Your task to perform on an android device: open app "Airtel Thanks" Image 0: 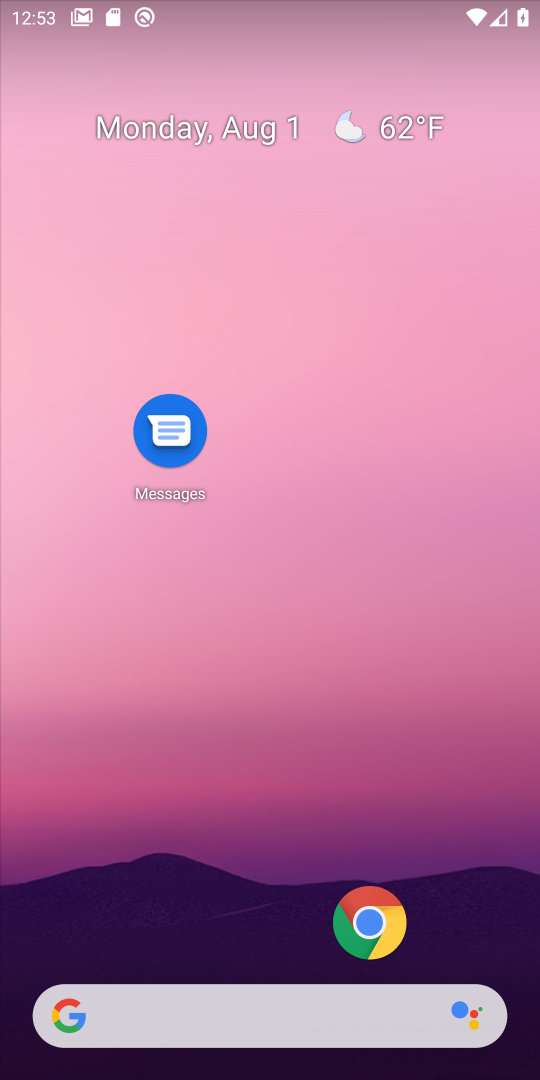
Step 0: drag from (260, 934) to (326, 261)
Your task to perform on an android device: open app "Airtel Thanks" Image 1: 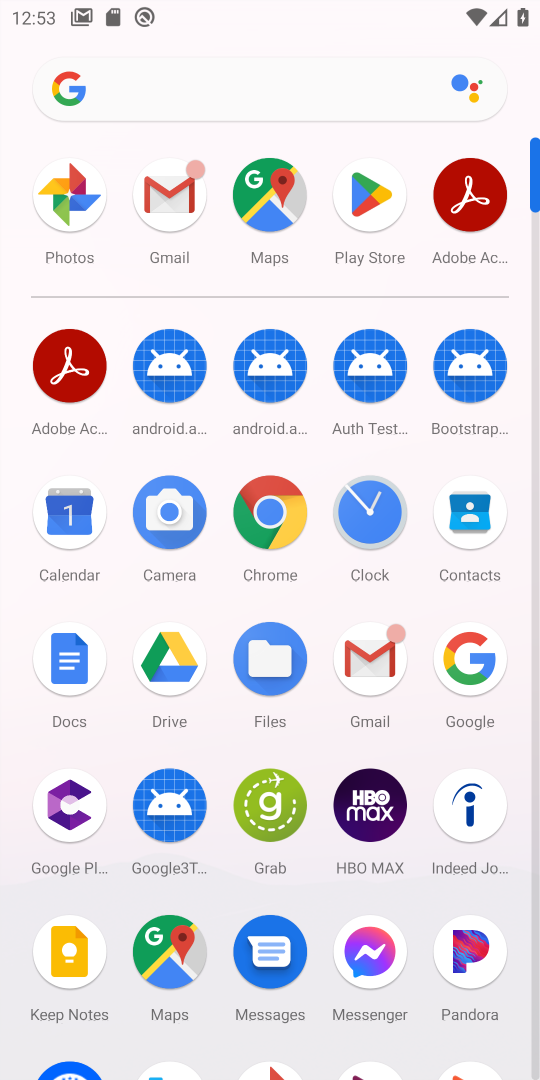
Step 1: click (370, 200)
Your task to perform on an android device: open app "Airtel Thanks" Image 2: 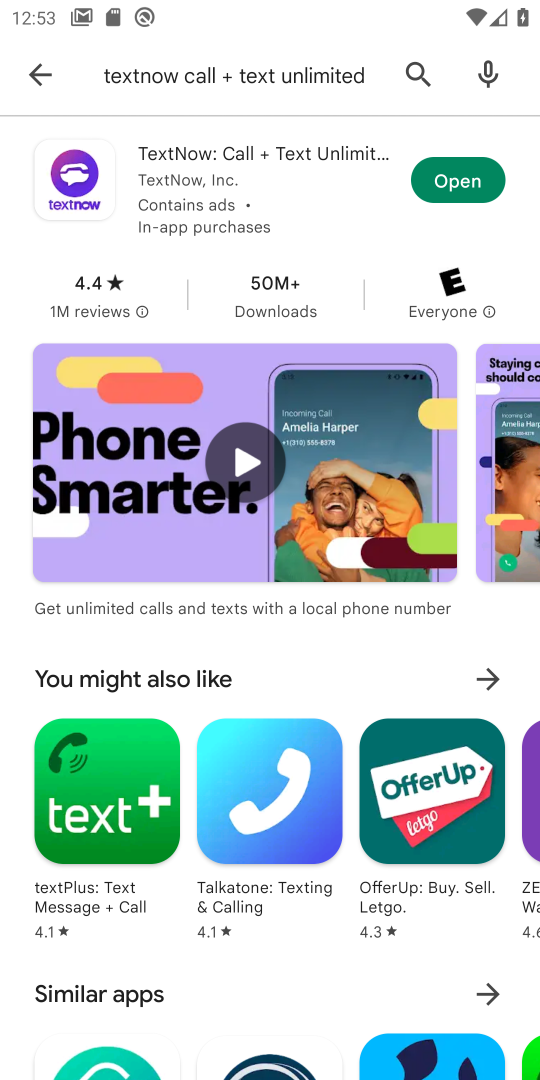
Step 2: click (426, 88)
Your task to perform on an android device: open app "Airtel Thanks" Image 3: 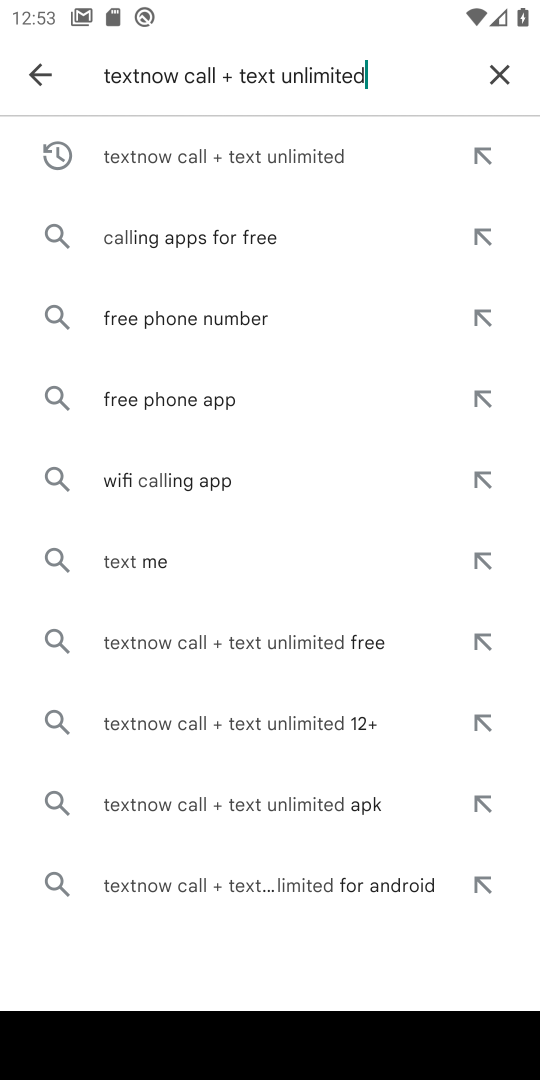
Step 3: click (496, 81)
Your task to perform on an android device: open app "Airtel Thanks" Image 4: 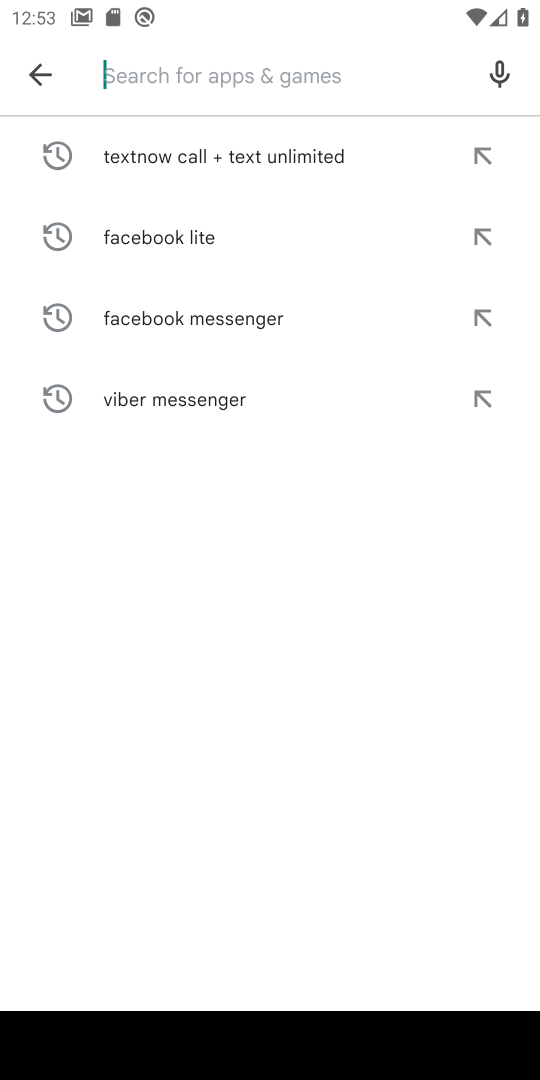
Step 4: type "Airtel Thanks"
Your task to perform on an android device: open app "Airtel Thanks" Image 5: 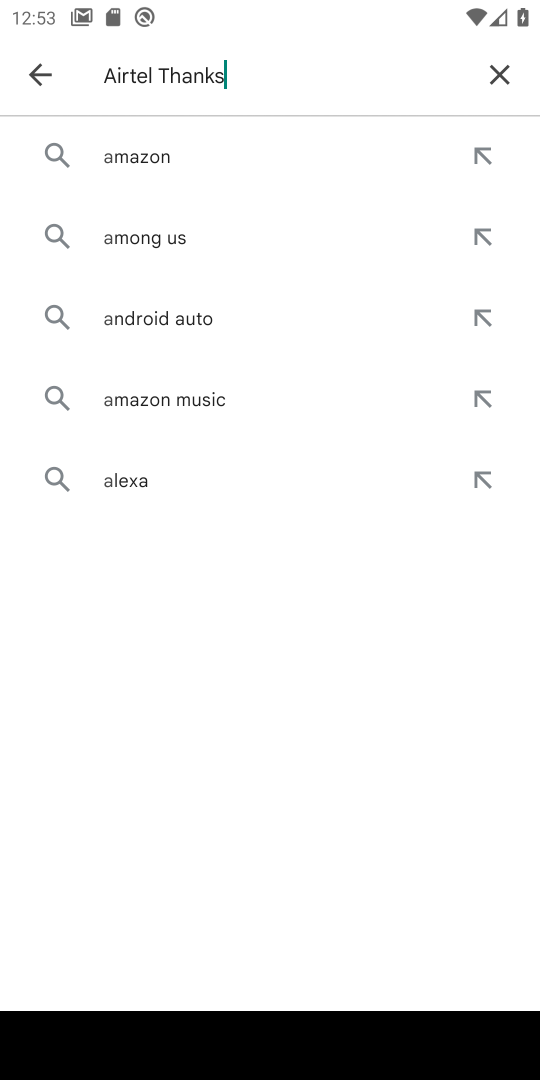
Step 5: type ""
Your task to perform on an android device: open app "Airtel Thanks" Image 6: 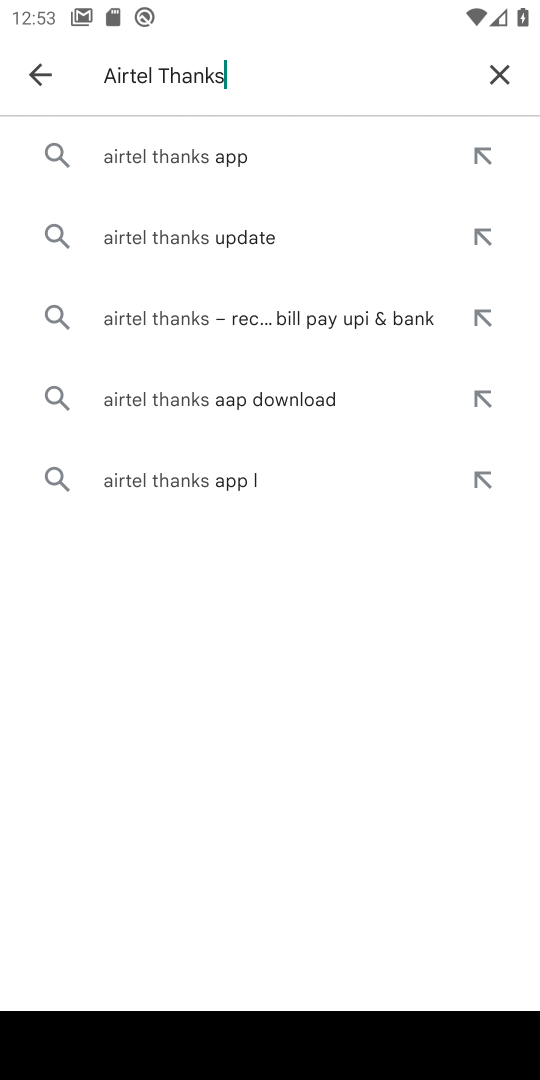
Step 6: click (181, 168)
Your task to perform on an android device: open app "Airtel Thanks" Image 7: 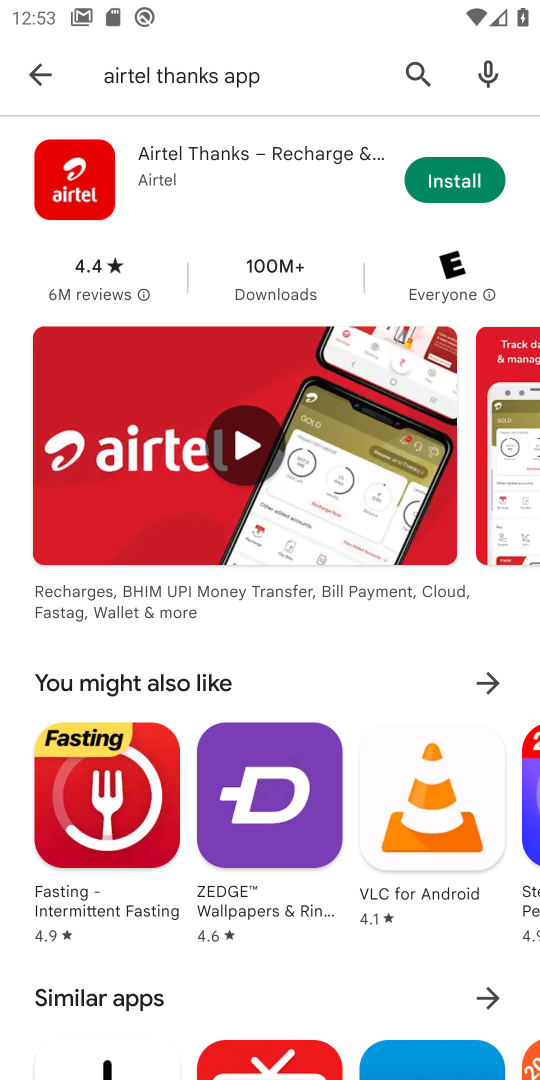
Step 7: task complete